Your task to perform on an android device: What is the news today? Image 0: 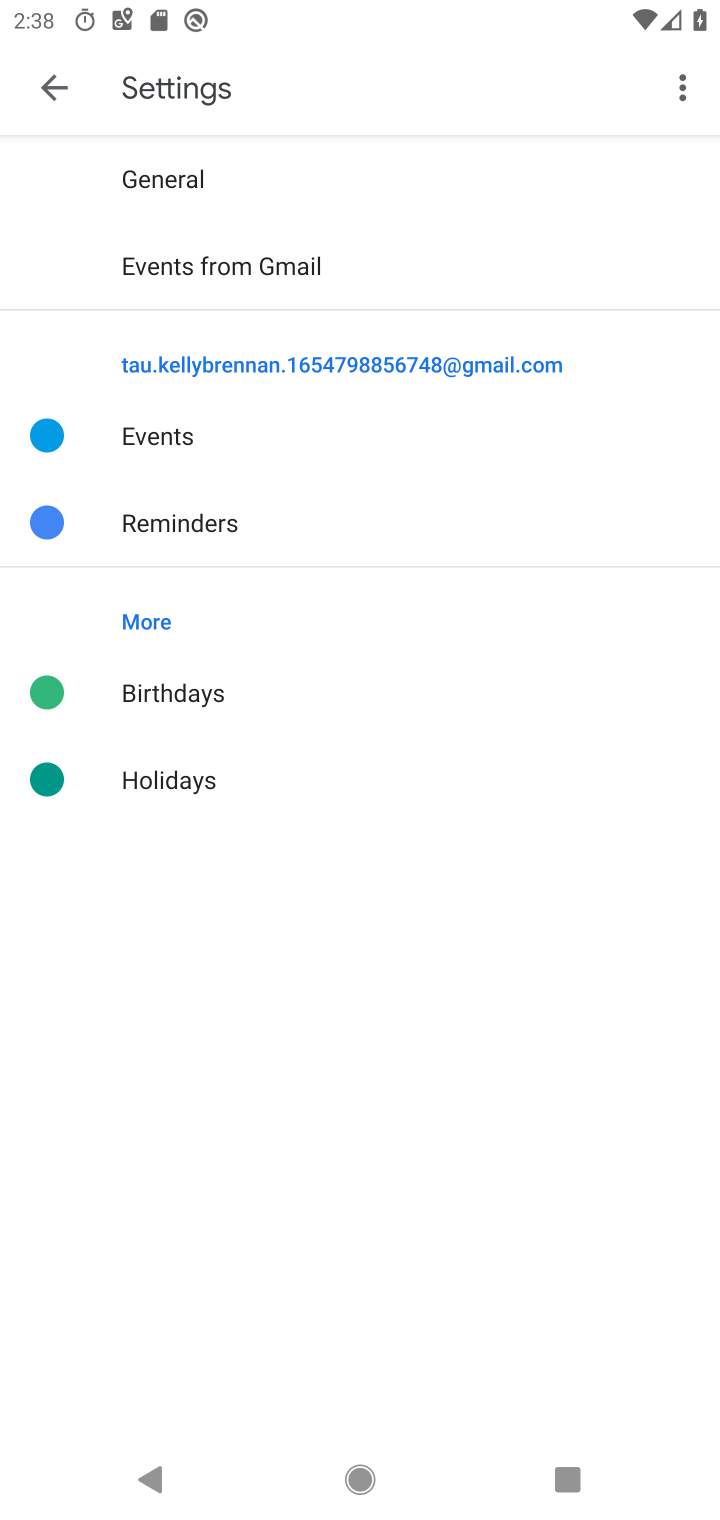
Step 0: press home button
Your task to perform on an android device: What is the news today? Image 1: 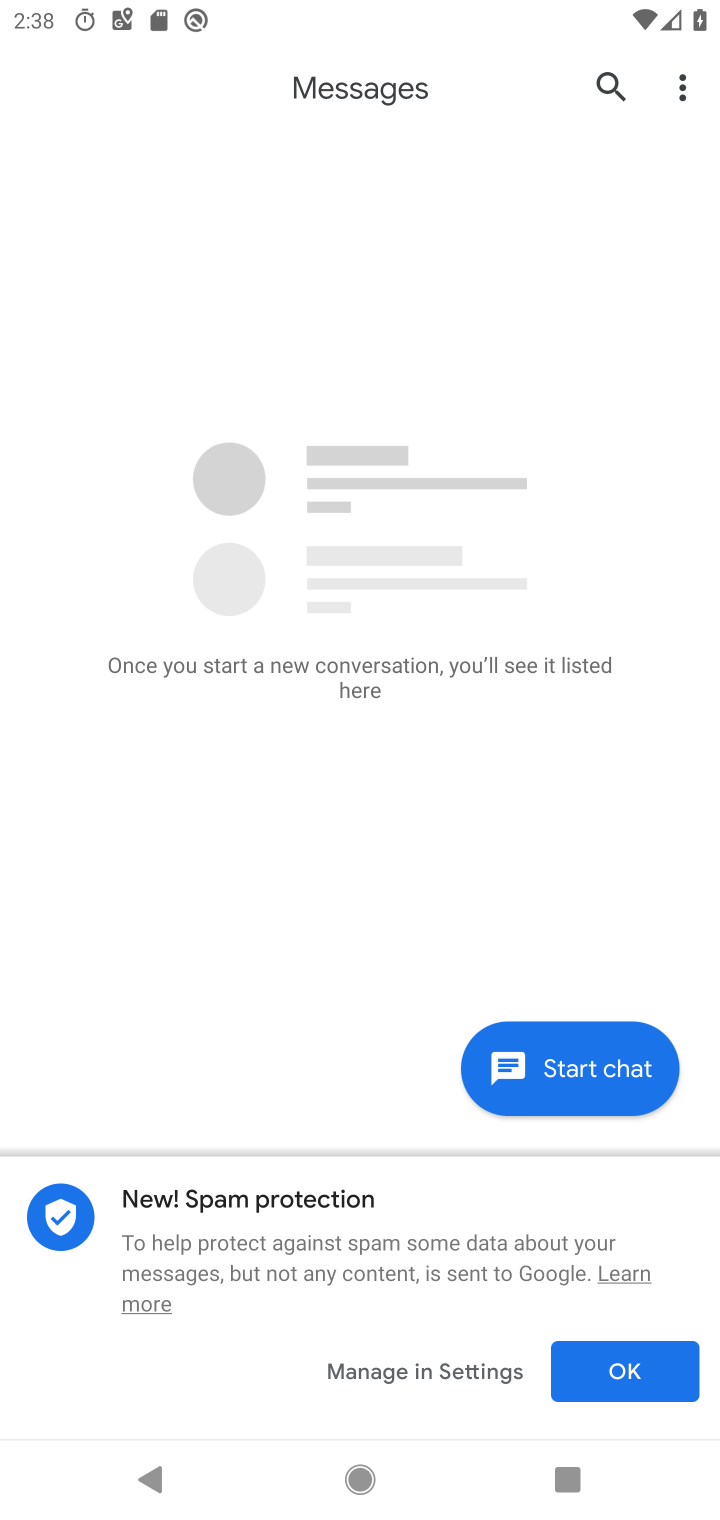
Step 1: press home button
Your task to perform on an android device: What is the news today? Image 2: 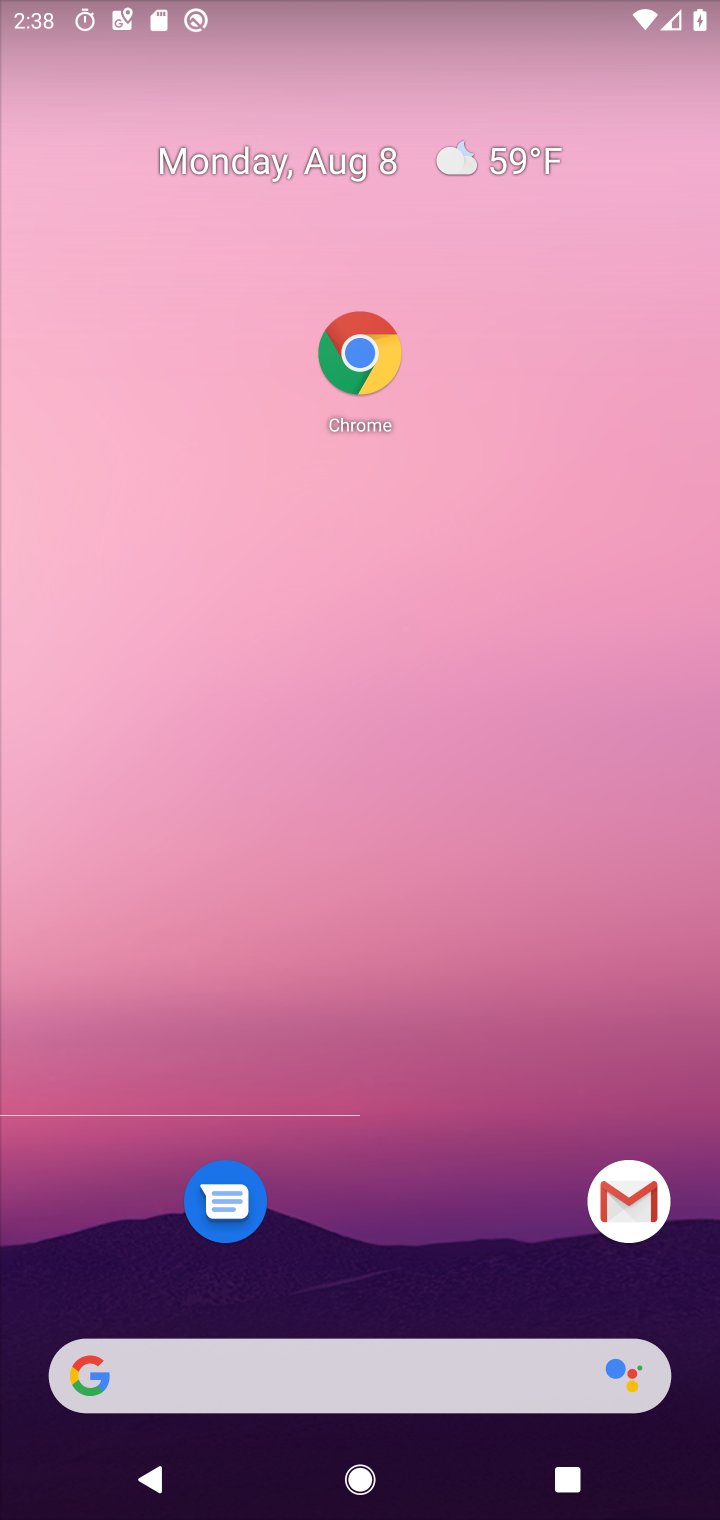
Step 2: drag from (473, 1166) to (466, 506)
Your task to perform on an android device: What is the news today? Image 3: 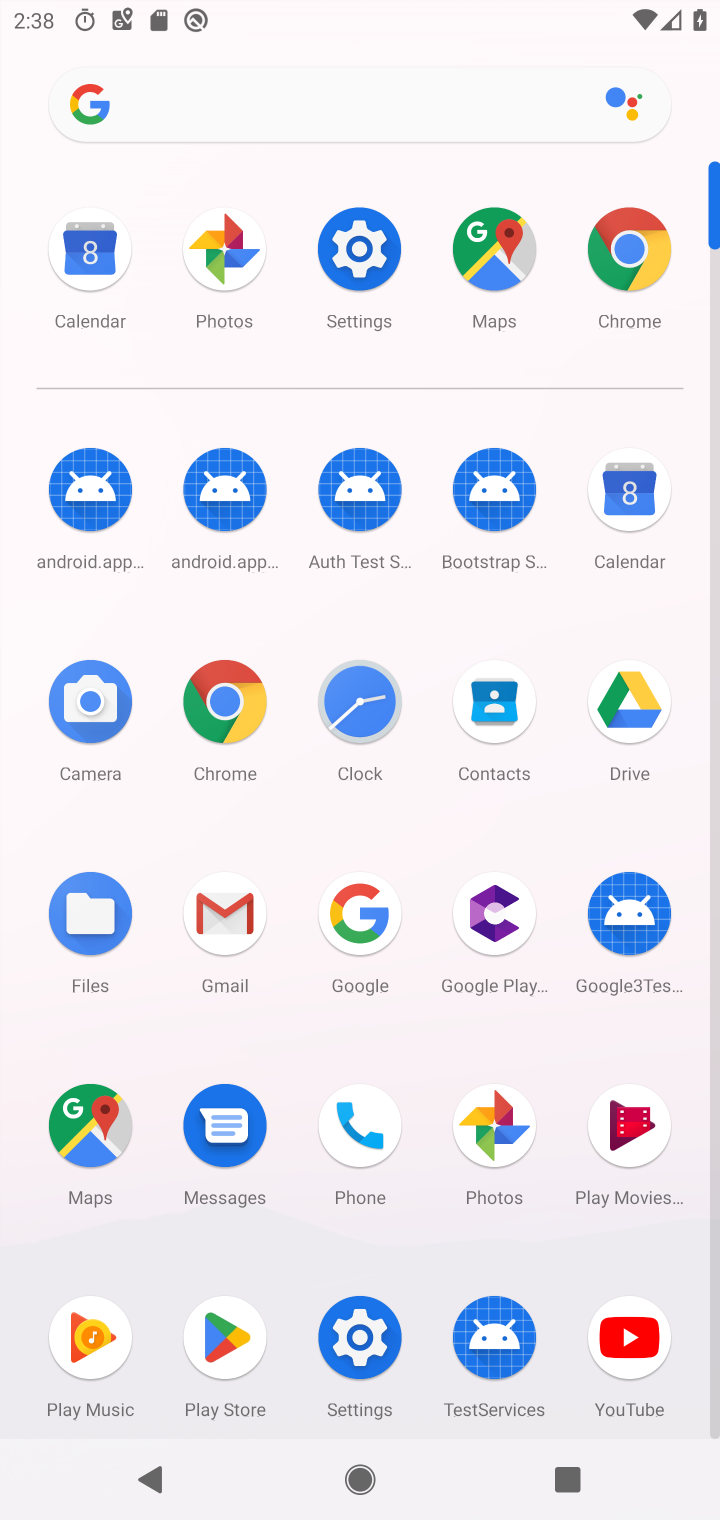
Step 3: click (219, 110)
Your task to perform on an android device: What is the news today? Image 4: 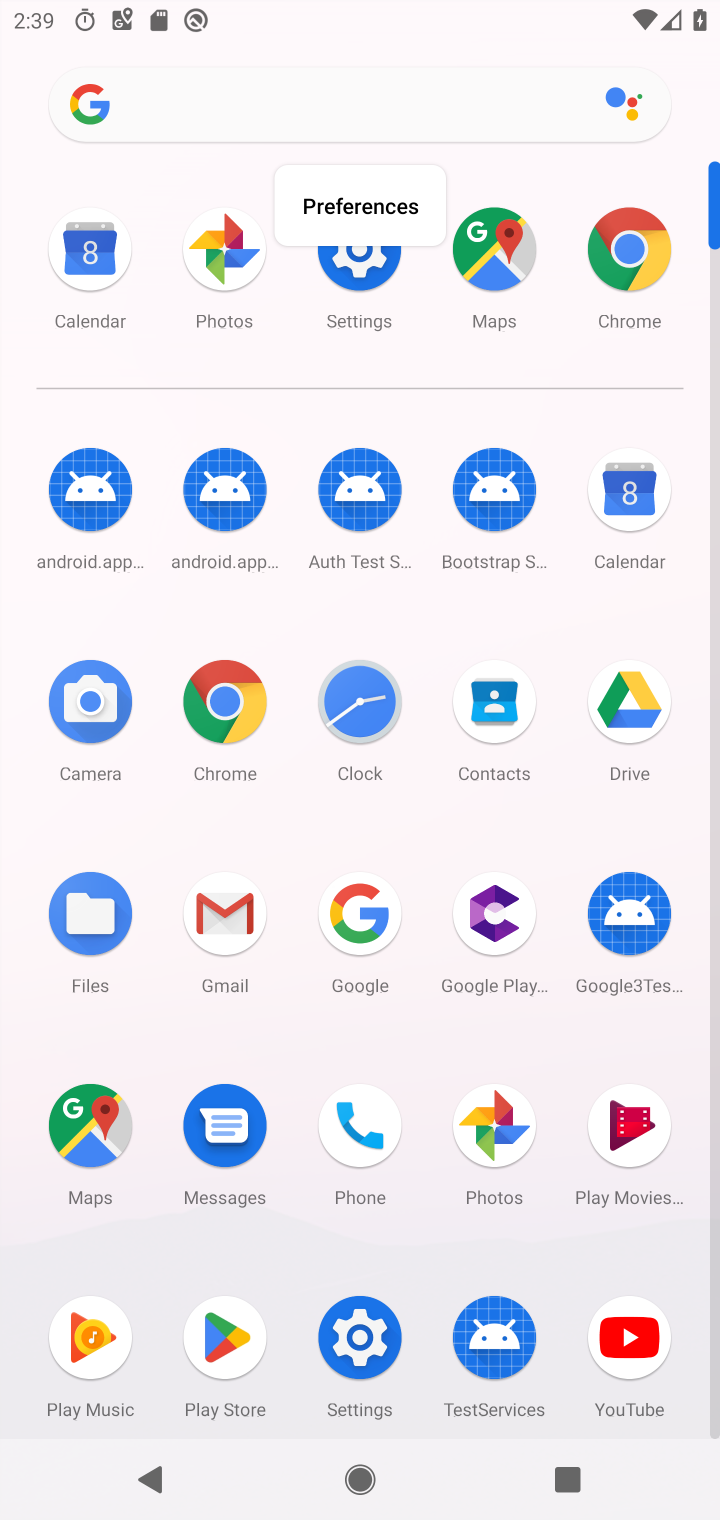
Step 4: click (240, 111)
Your task to perform on an android device: What is the news today? Image 5: 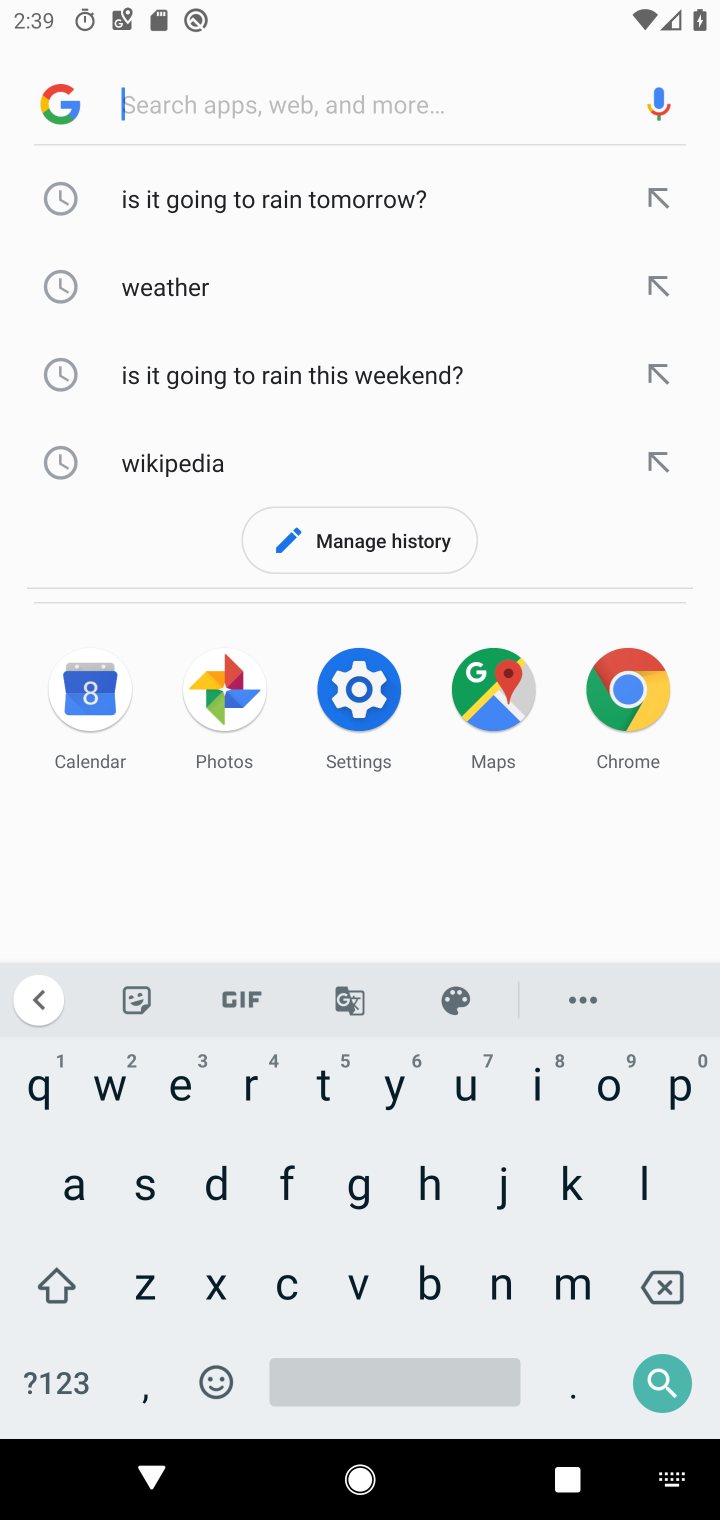
Step 5: click (489, 1289)
Your task to perform on an android device: What is the news today? Image 6: 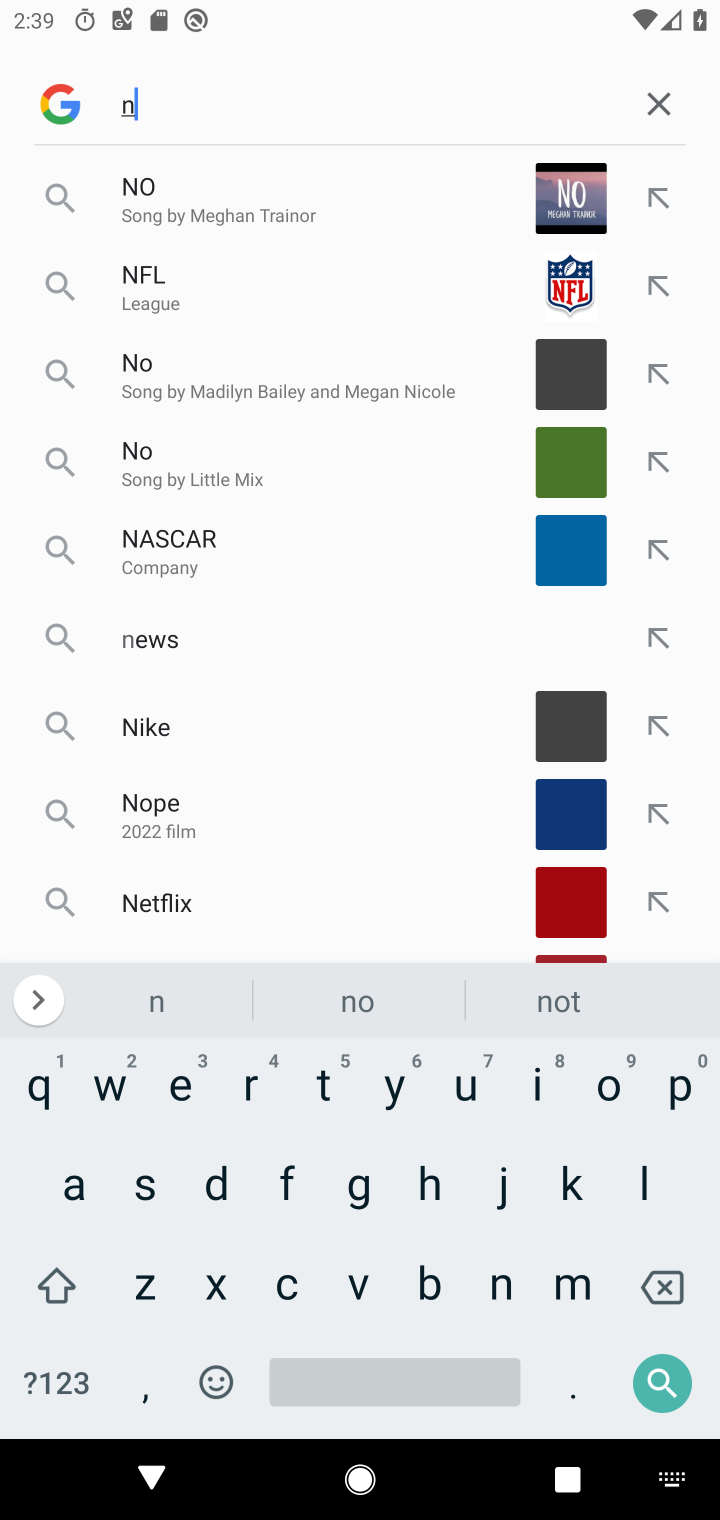
Step 6: click (184, 1095)
Your task to perform on an android device: What is the news today? Image 7: 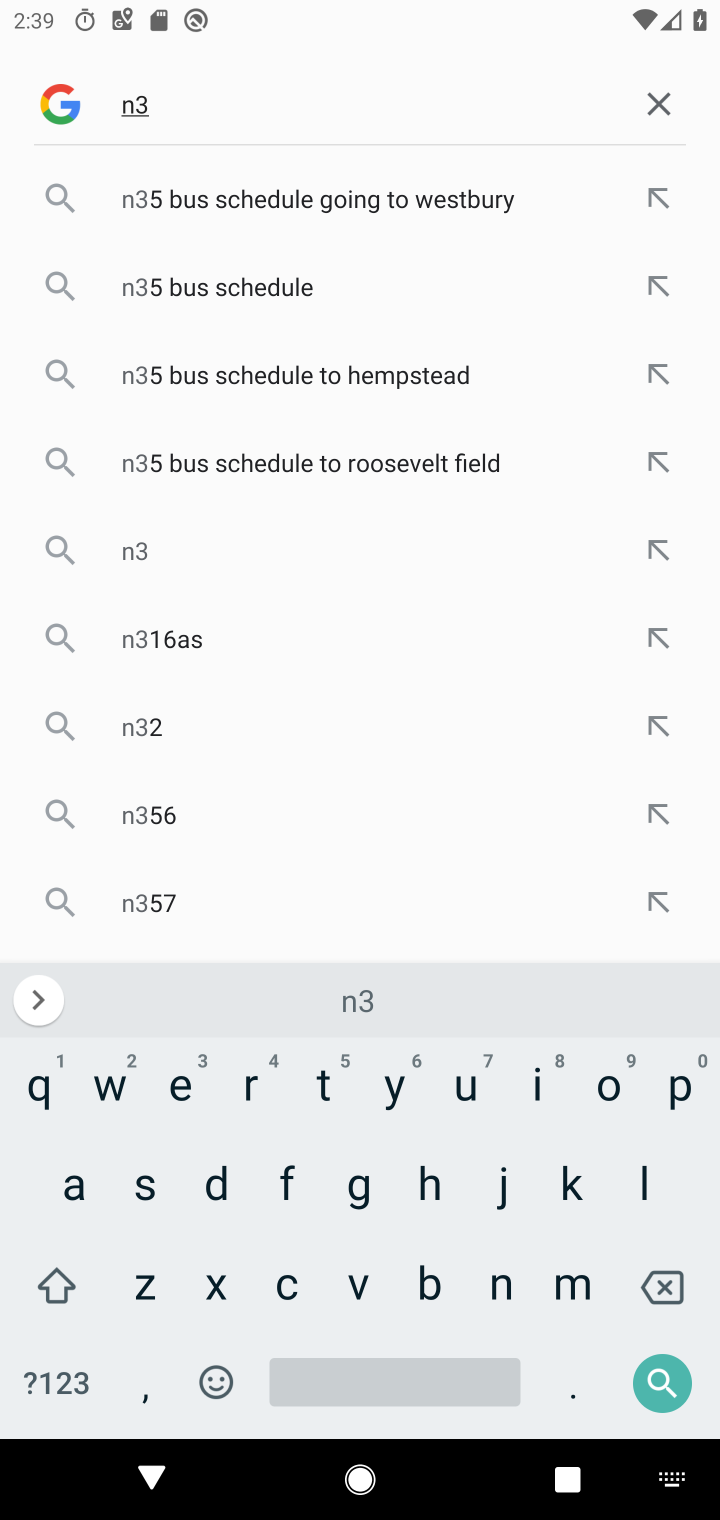
Step 7: click (108, 1097)
Your task to perform on an android device: What is the news today? Image 8: 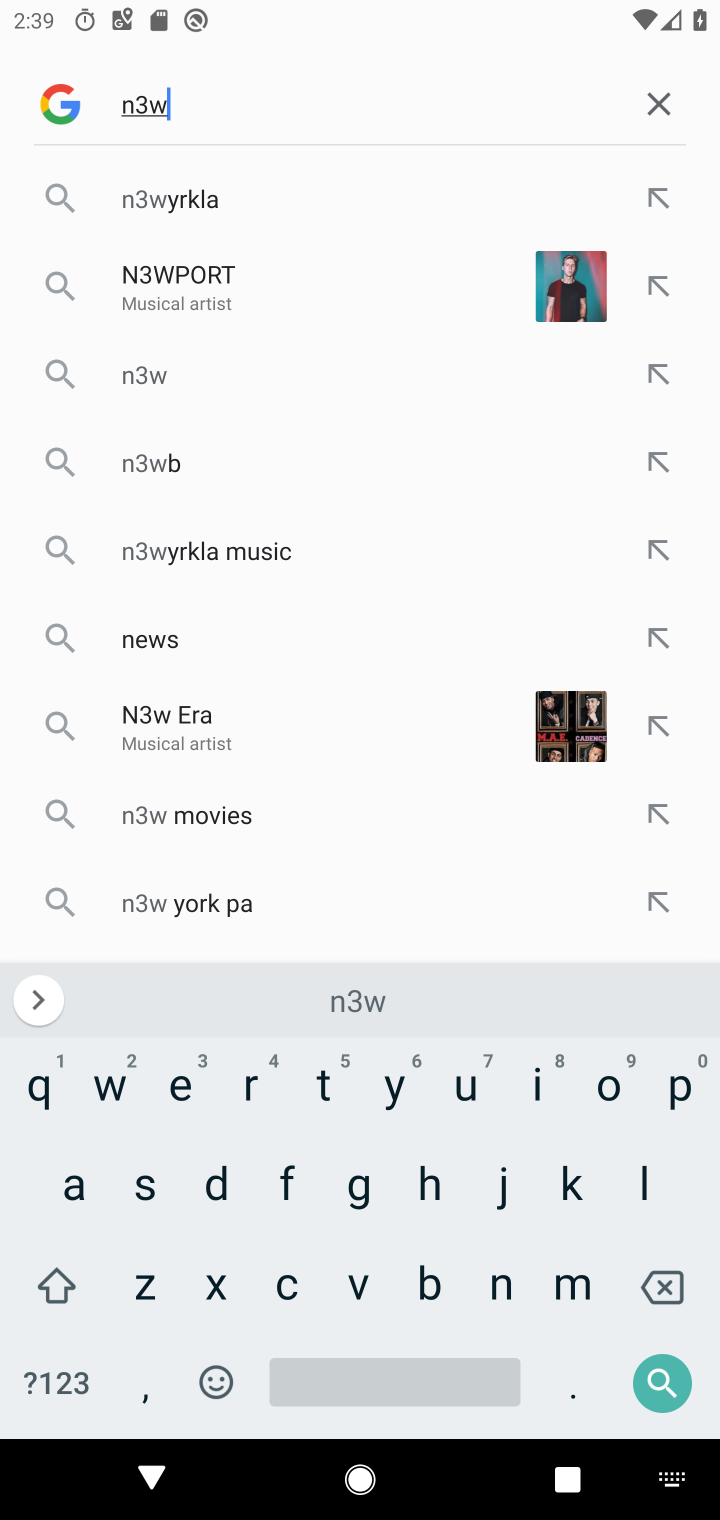
Step 8: click (657, 110)
Your task to perform on an android device: What is the news today? Image 9: 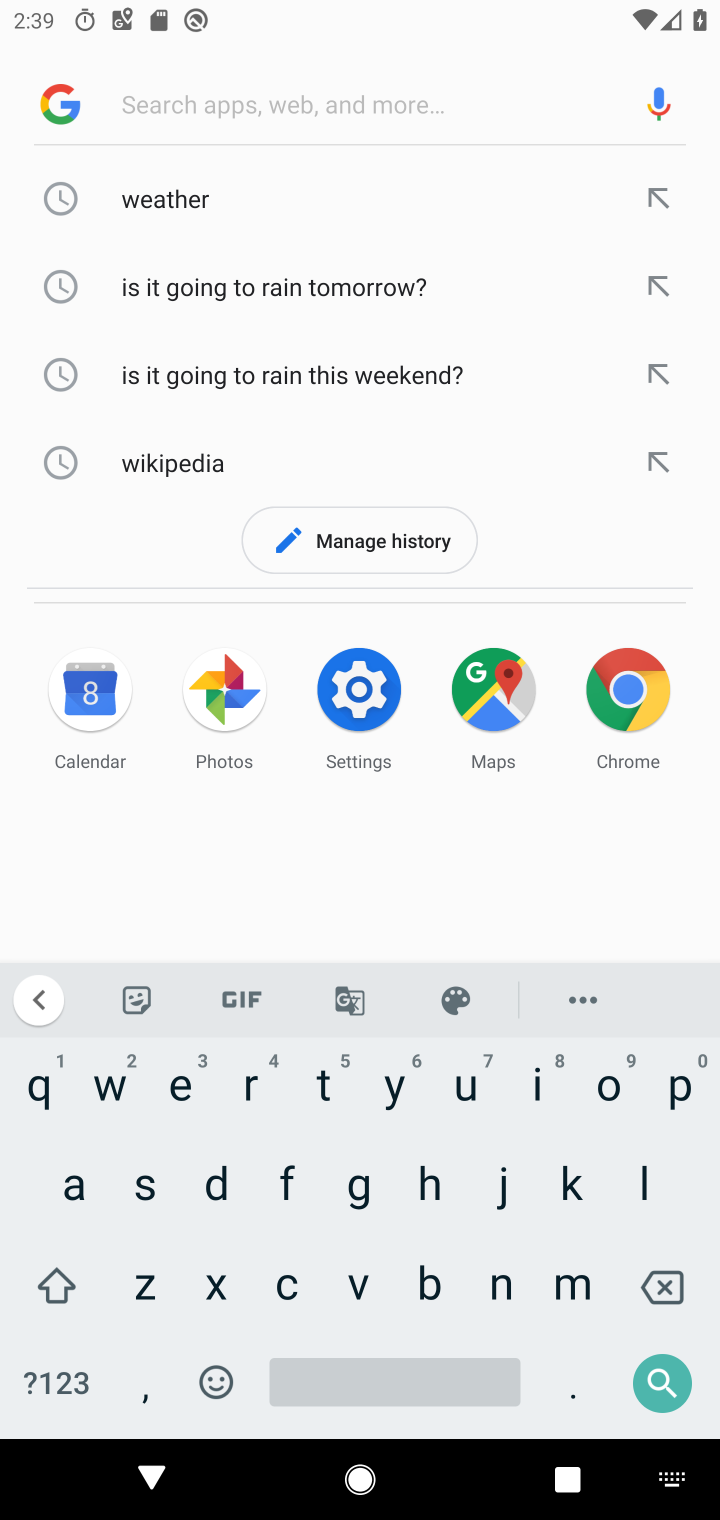
Step 9: click (504, 1310)
Your task to perform on an android device: What is the news today? Image 10: 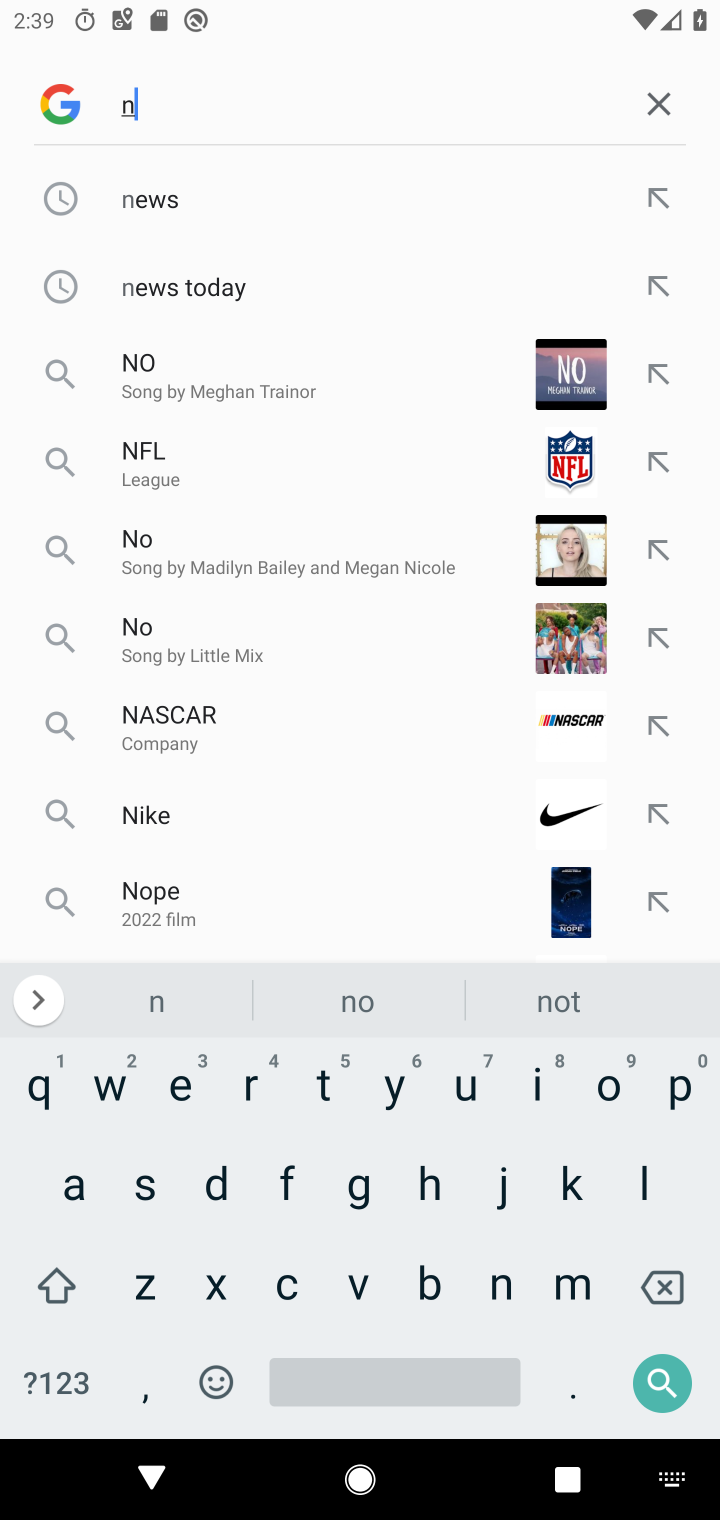
Step 10: click (172, 213)
Your task to perform on an android device: What is the news today? Image 11: 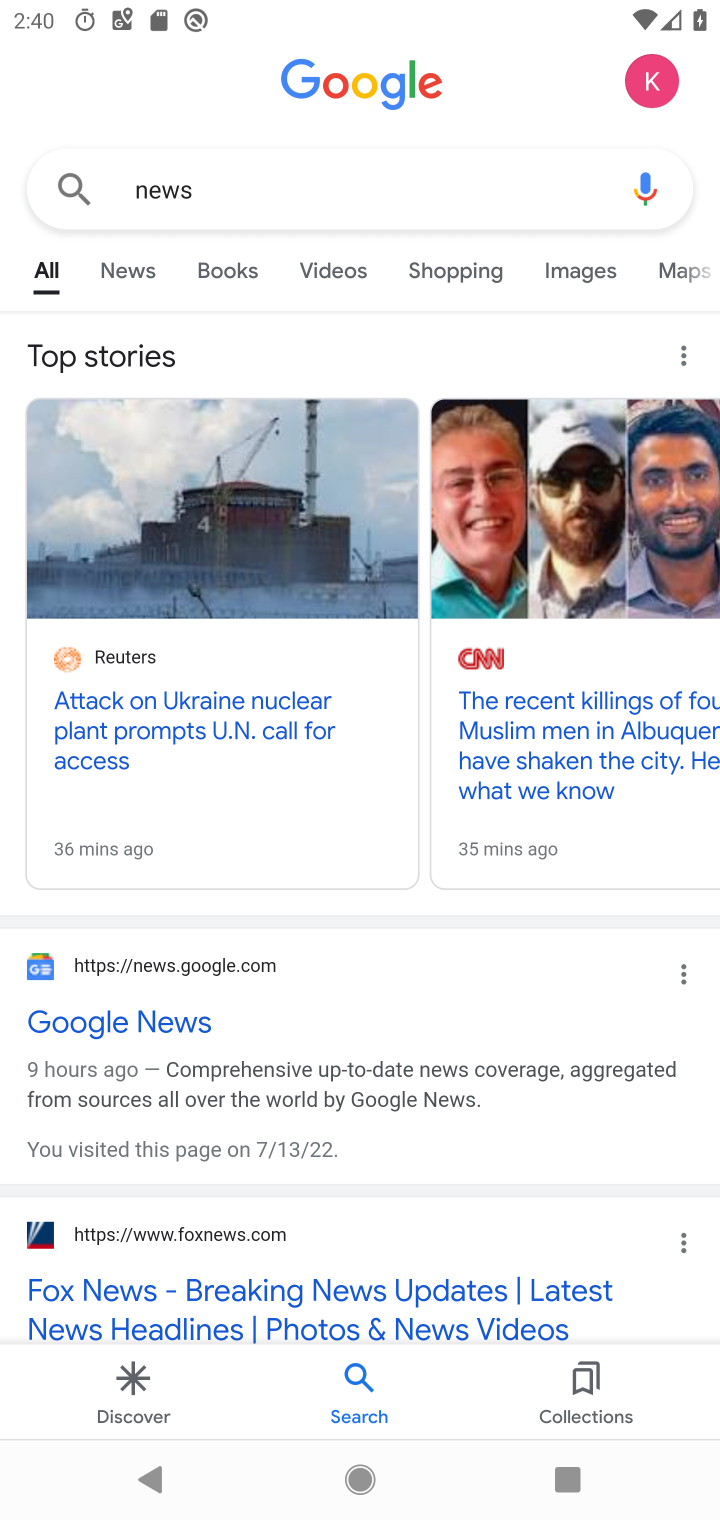
Step 11: task complete